Your task to perform on an android device: Open eBay Image 0: 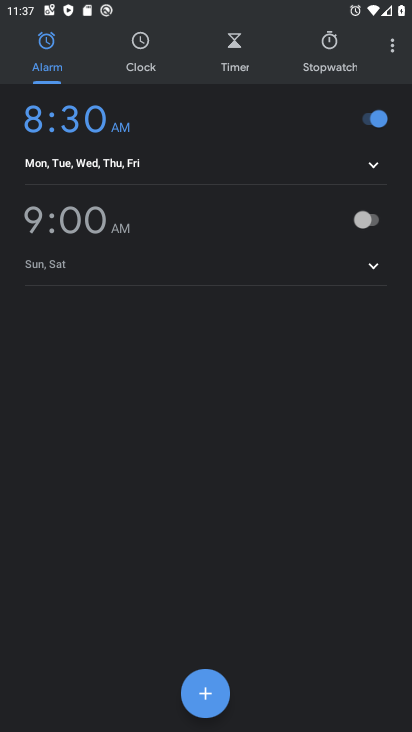
Step 0: press home button
Your task to perform on an android device: Open eBay Image 1: 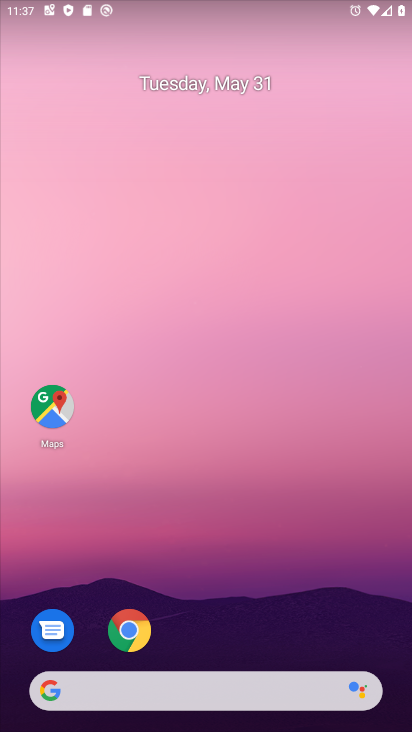
Step 1: click (139, 637)
Your task to perform on an android device: Open eBay Image 2: 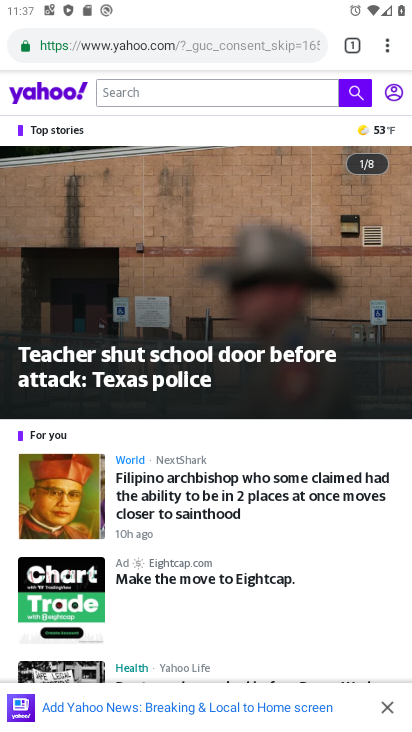
Step 2: click (357, 51)
Your task to perform on an android device: Open eBay Image 3: 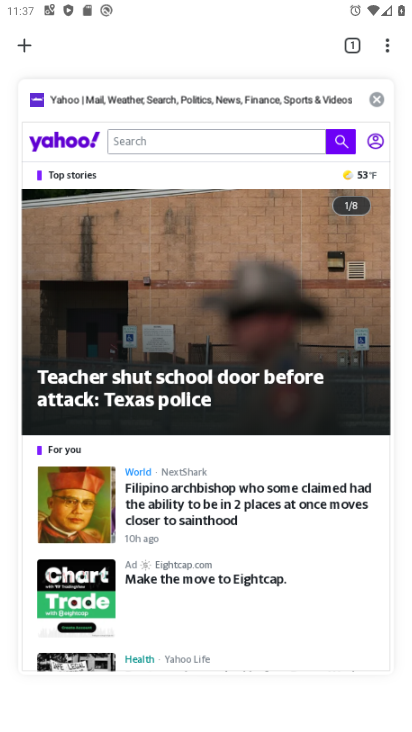
Step 3: click (378, 105)
Your task to perform on an android device: Open eBay Image 4: 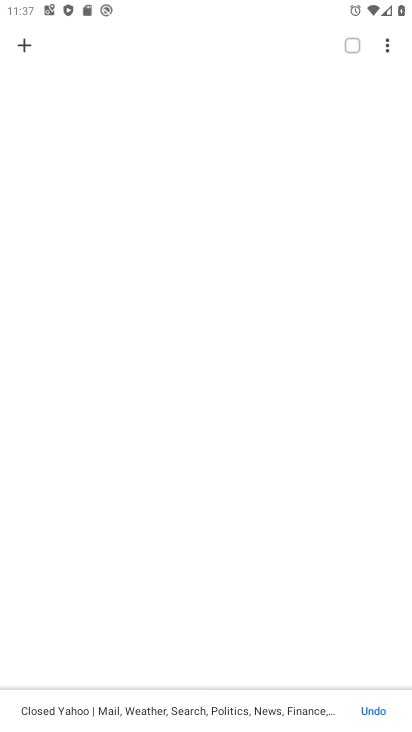
Step 4: click (20, 44)
Your task to perform on an android device: Open eBay Image 5: 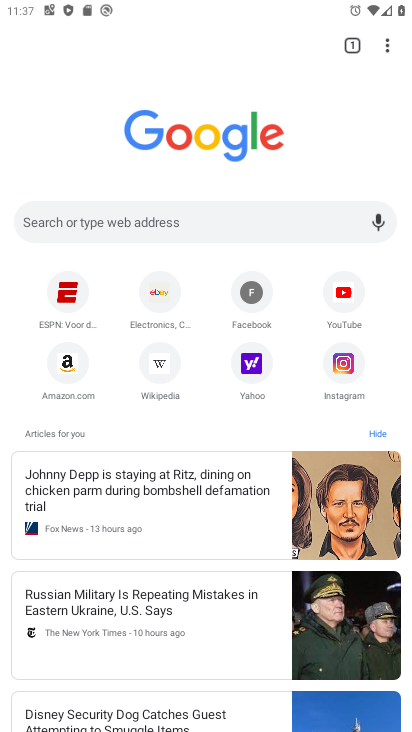
Step 5: click (157, 299)
Your task to perform on an android device: Open eBay Image 6: 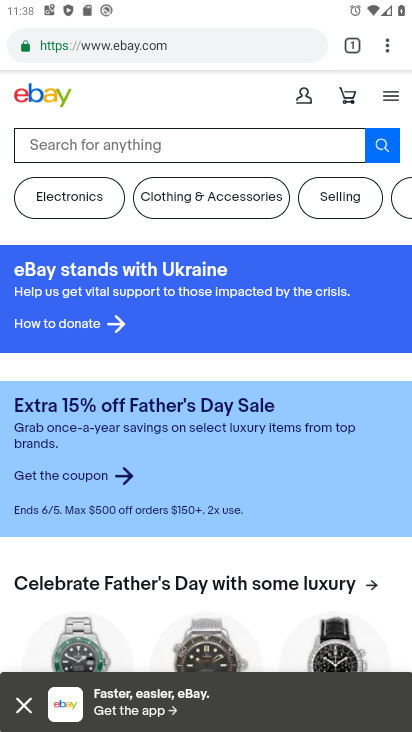
Step 6: task complete